Your task to perform on an android device: toggle improve location accuracy Image 0: 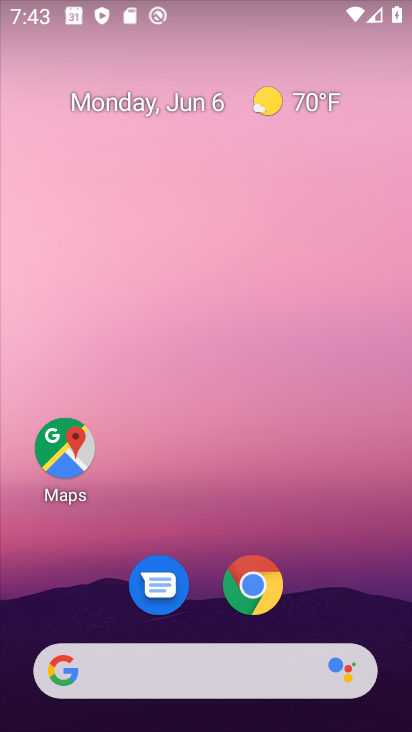
Step 0: drag from (204, 508) to (230, 0)
Your task to perform on an android device: toggle improve location accuracy Image 1: 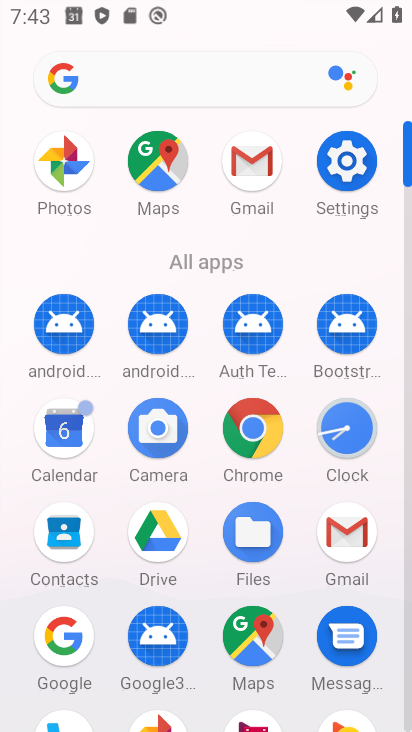
Step 1: click (337, 161)
Your task to perform on an android device: toggle improve location accuracy Image 2: 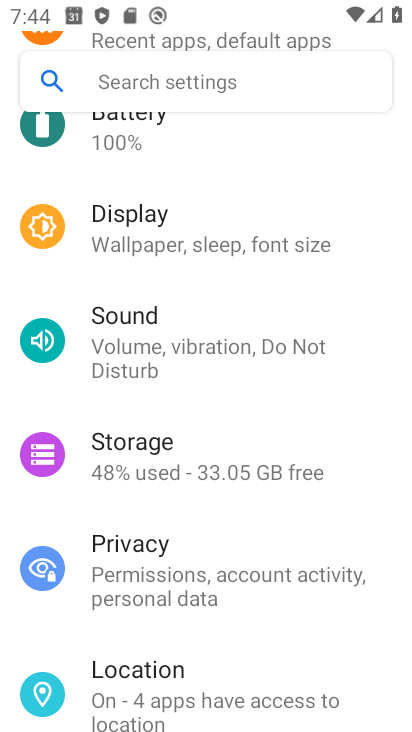
Step 2: click (207, 695)
Your task to perform on an android device: toggle improve location accuracy Image 3: 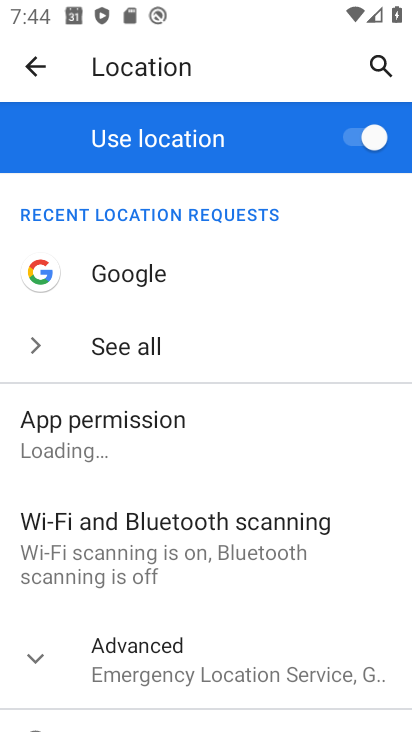
Step 3: drag from (293, 453) to (326, 121)
Your task to perform on an android device: toggle improve location accuracy Image 4: 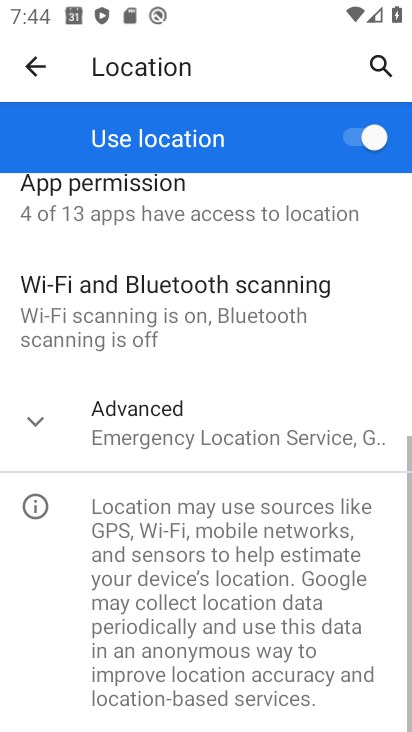
Step 4: click (31, 415)
Your task to perform on an android device: toggle improve location accuracy Image 5: 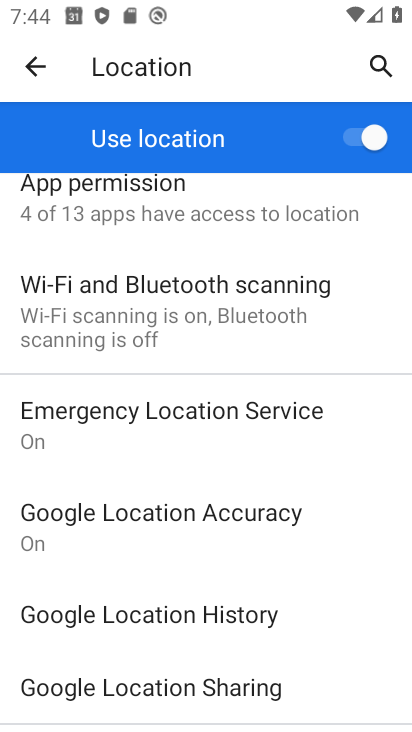
Step 5: click (165, 519)
Your task to perform on an android device: toggle improve location accuracy Image 6: 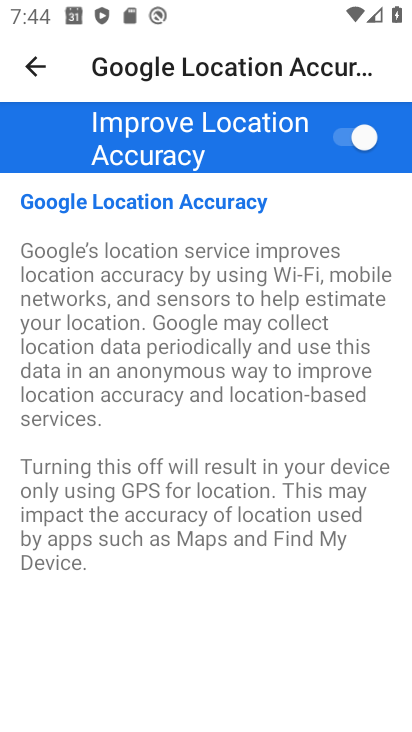
Step 6: click (348, 134)
Your task to perform on an android device: toggle improve location accuracy Image 7: 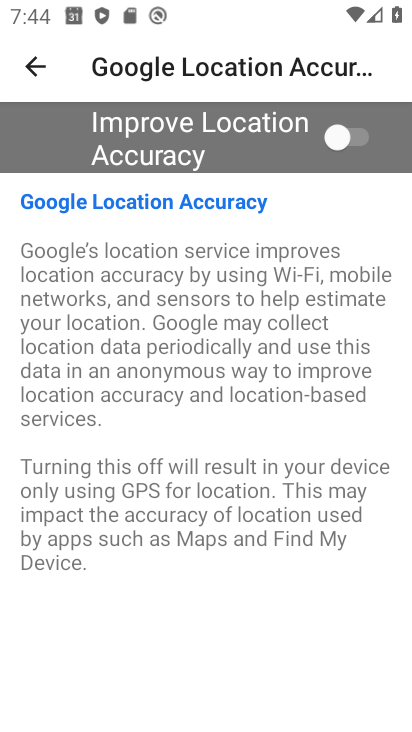
Step 7: task complete